Your task to perform on an android device: Open a new tab in Chrome Image 0: 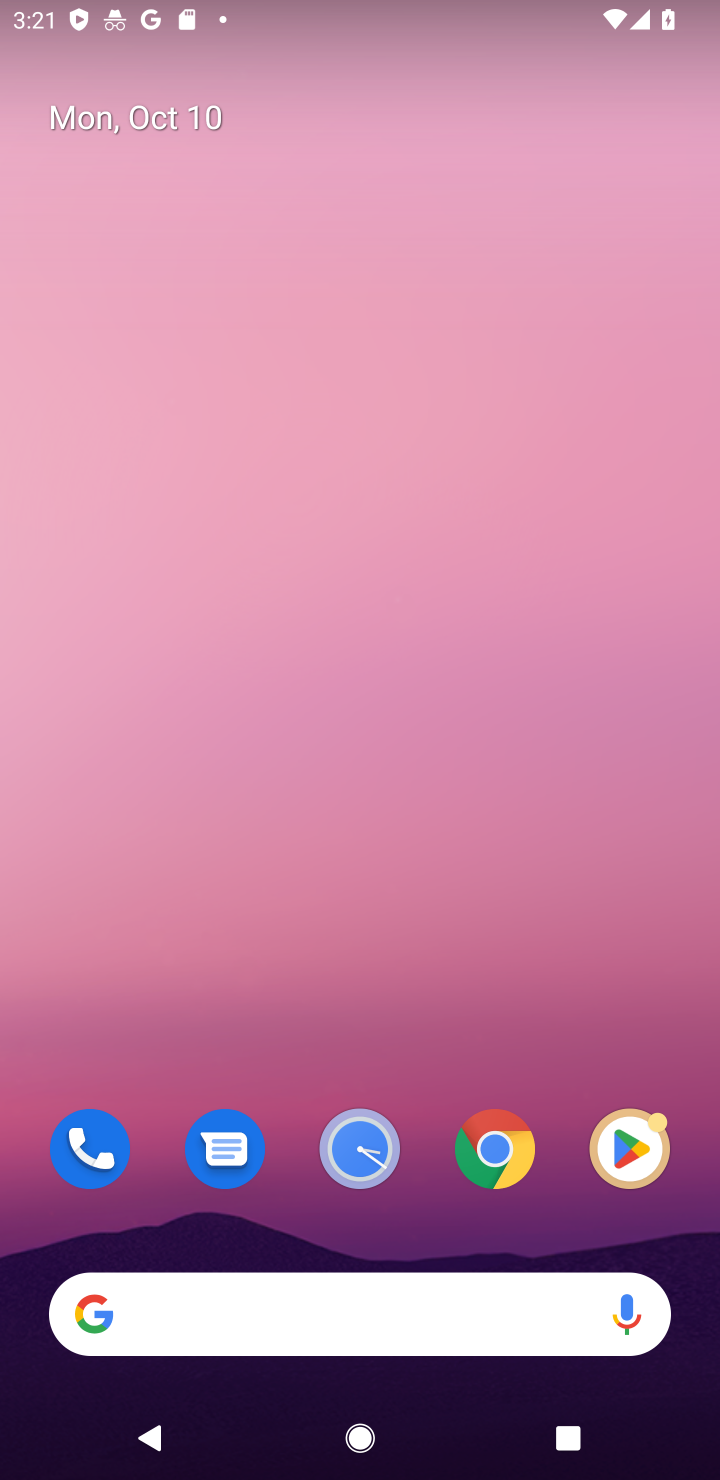
Step 0: click (477, 1153)
Your task to perform on an android device: Open a new tab in Chrome Image 1: 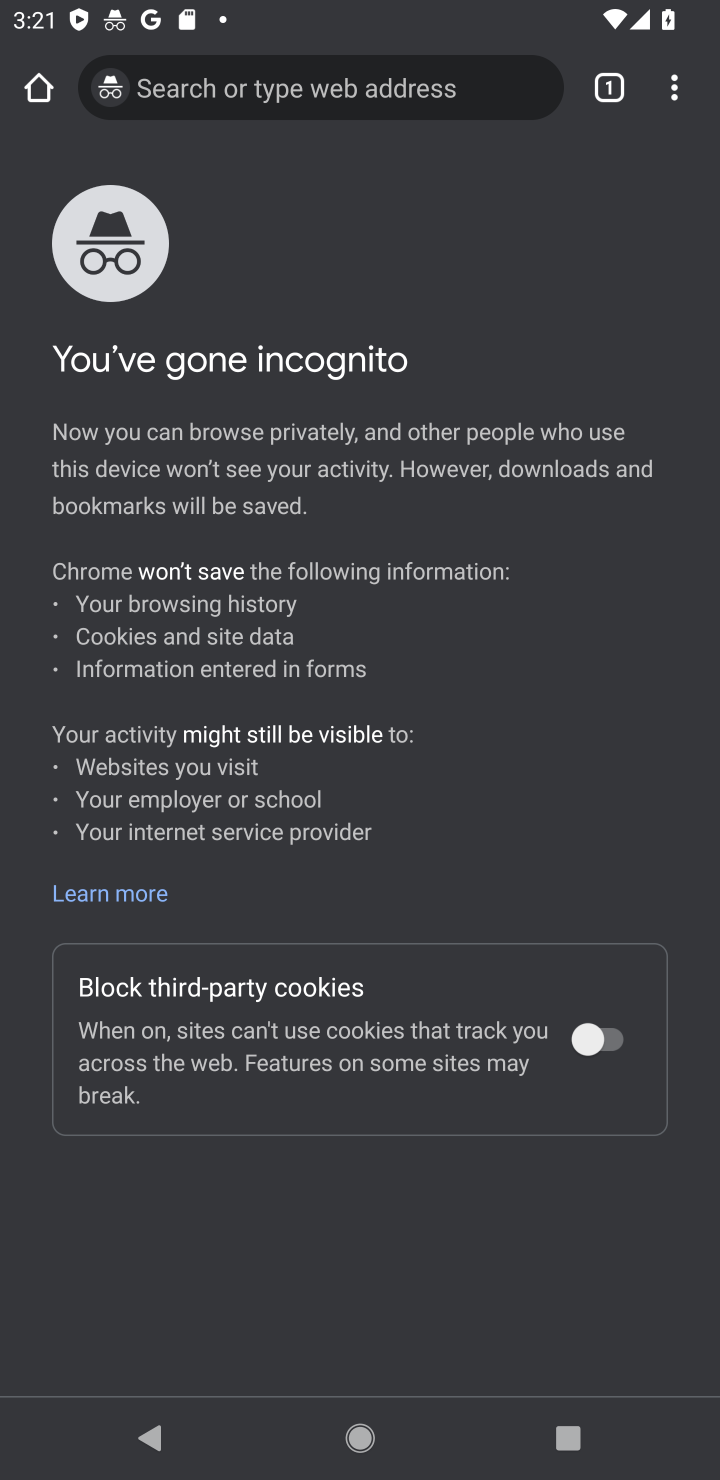
Step 1: click (598, 100)
Your task to perform on an android device: Open a new tab in Chrome Image 2: 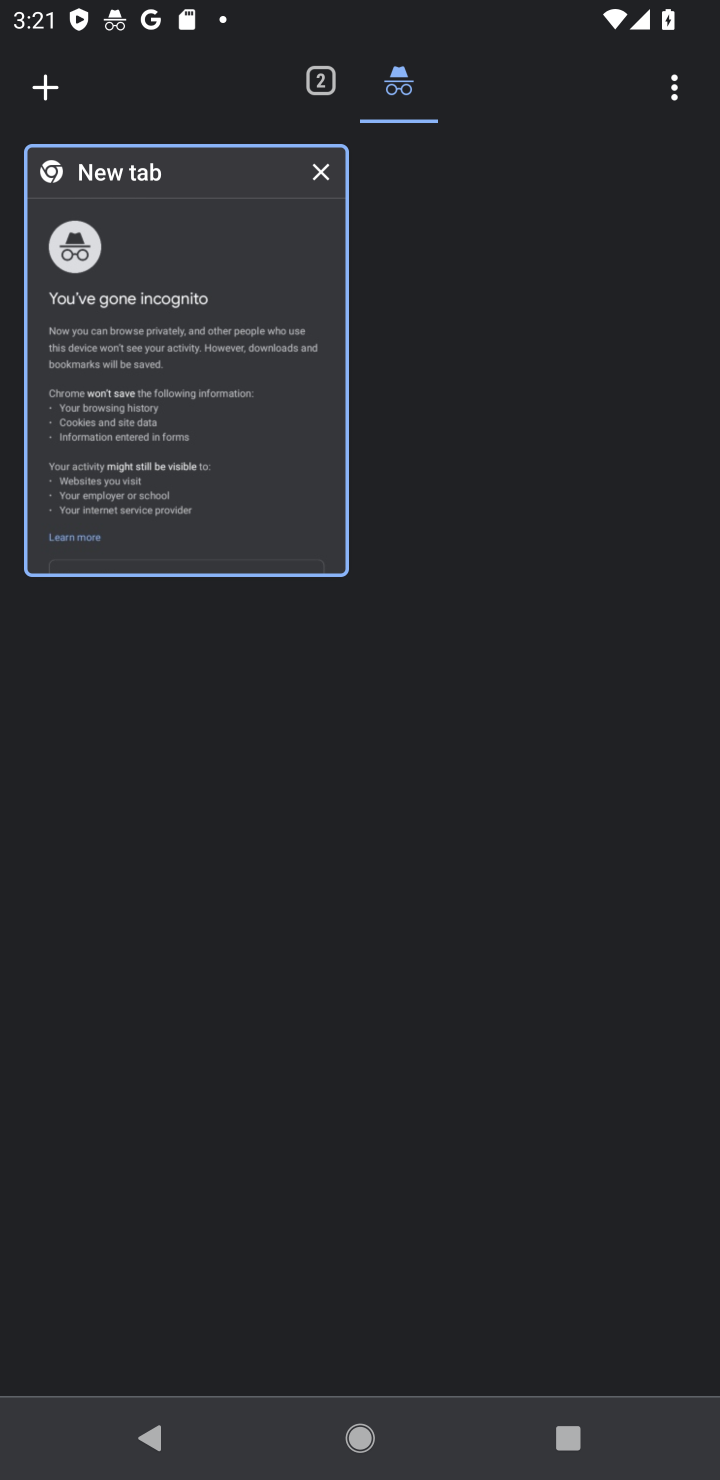
Step 2: click (309, 79)
Your task to perform on an android device: Open a new tab in Chrome Image 3: 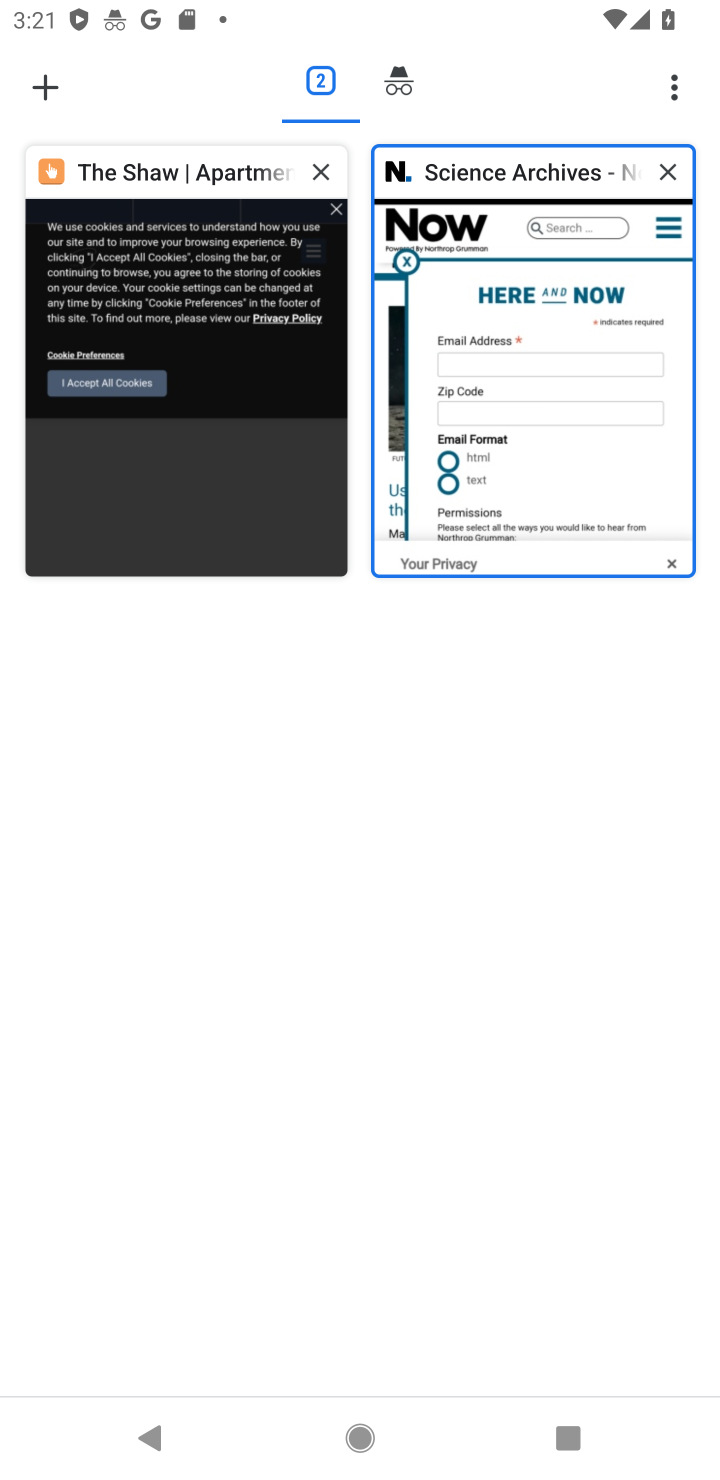
Step 3: click (68, 82)
Your task to perform on an android device: Open a new tab in Chrome Image 4: 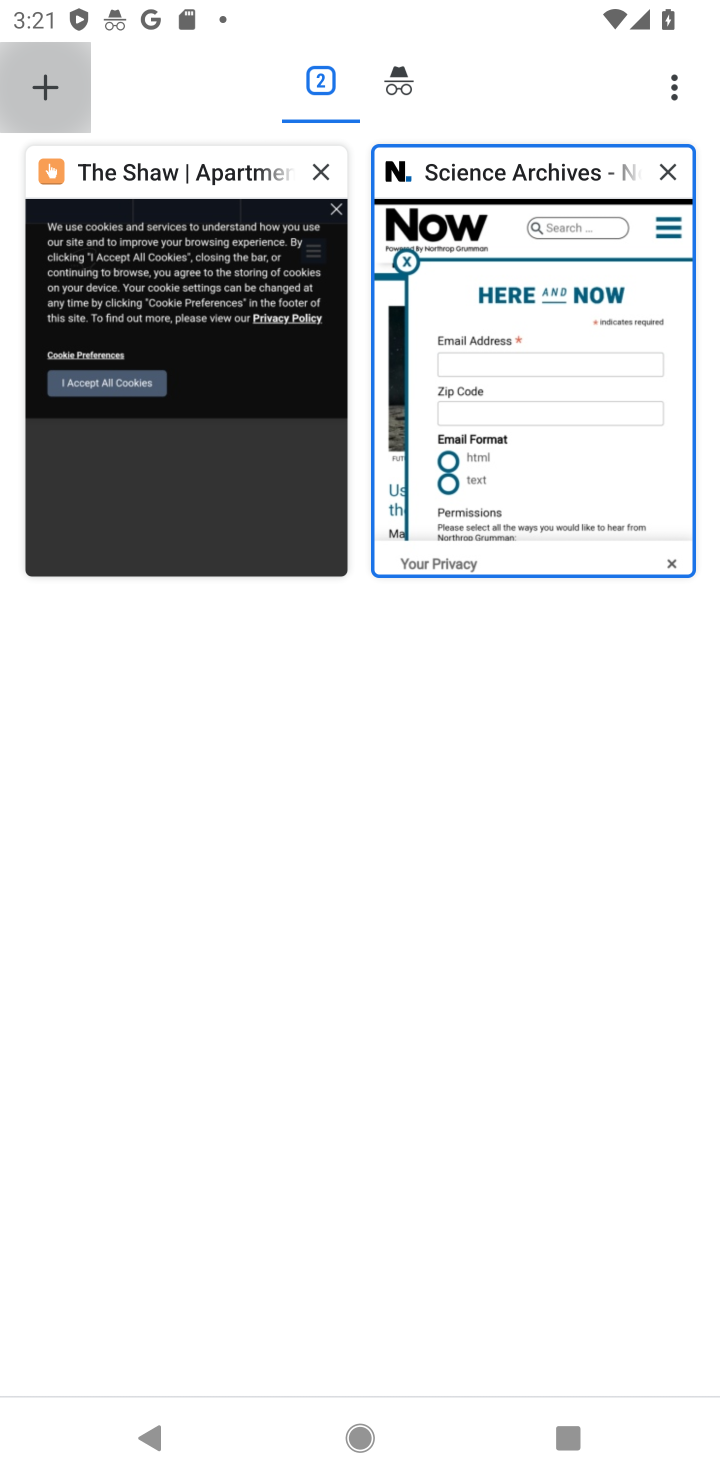
Step 4: task complete